Your task to perform on an android device: clear history in the chrome app Image 0: 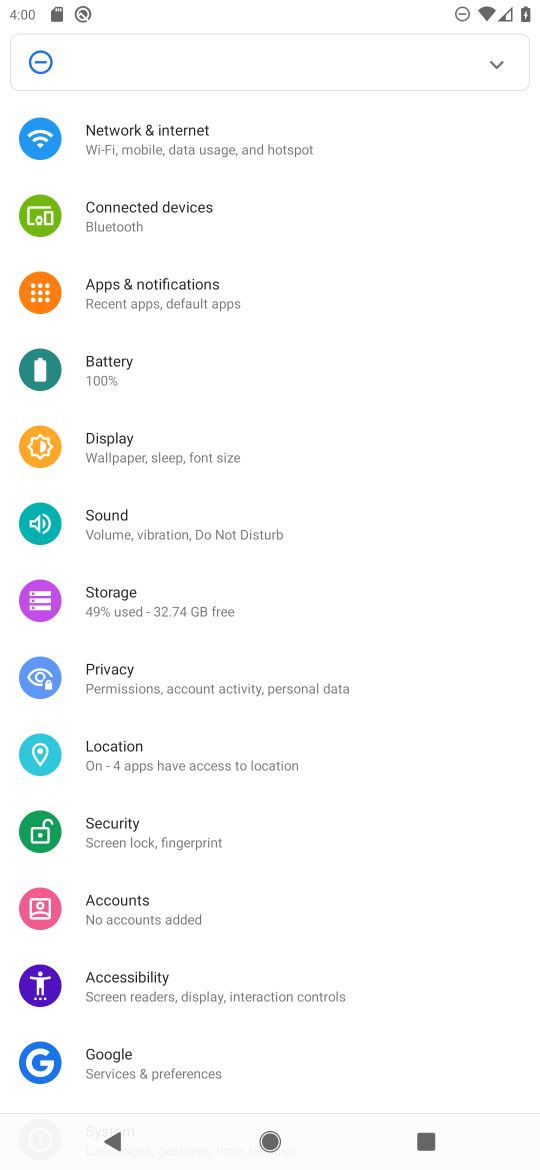
Step 0: press home button
Your task to perform on an android device: clear history in the chrome app Image 1: 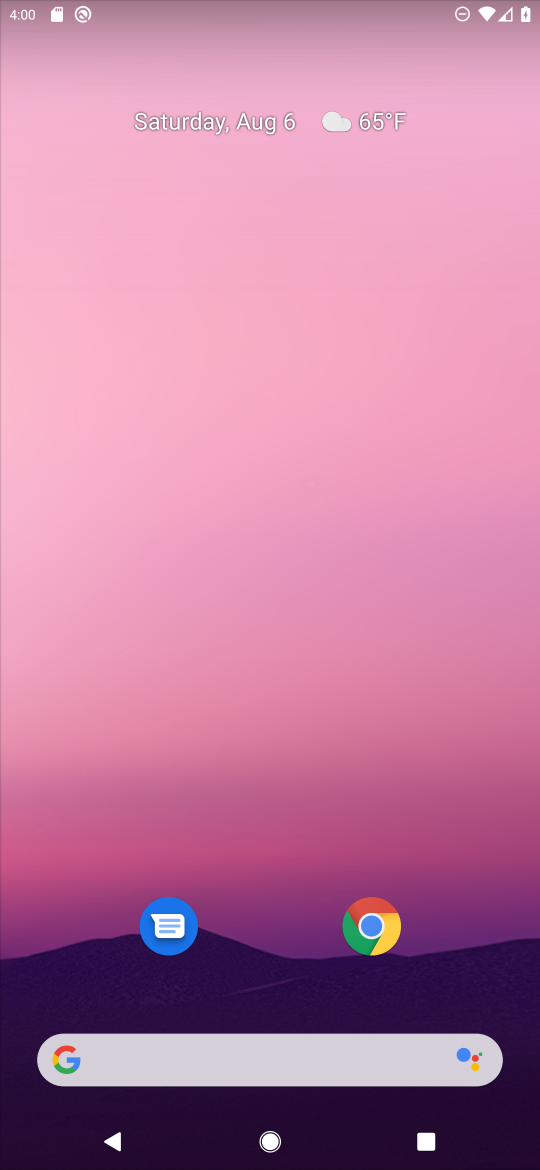
Step 1: click (397, 904)
Your task to perform on an android device: clear history in the chrome app Image 2: 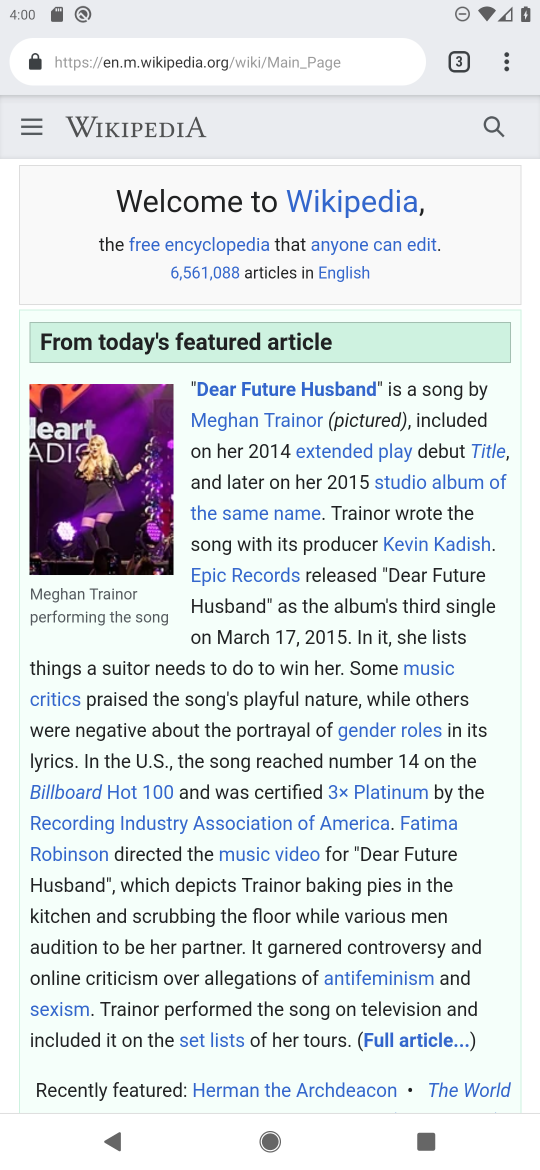
Step 2: click (510, 48)
Your task to perform on an android device: clear history in the chrome app Image 3: 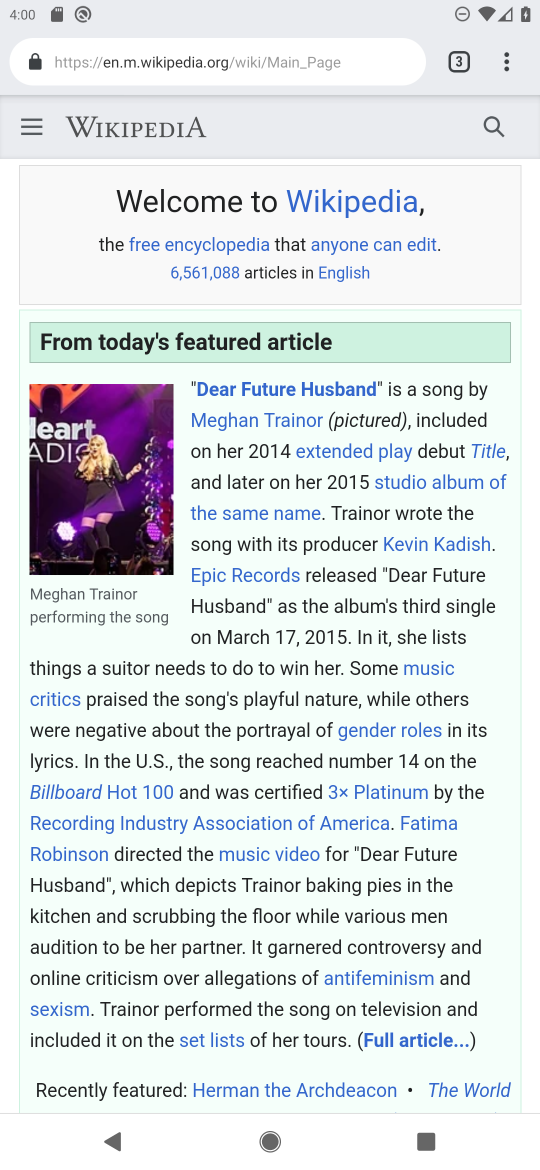
Step 3: click (513, 54)
Your task to perform on an android device: clear history in the chrome app Image 4: 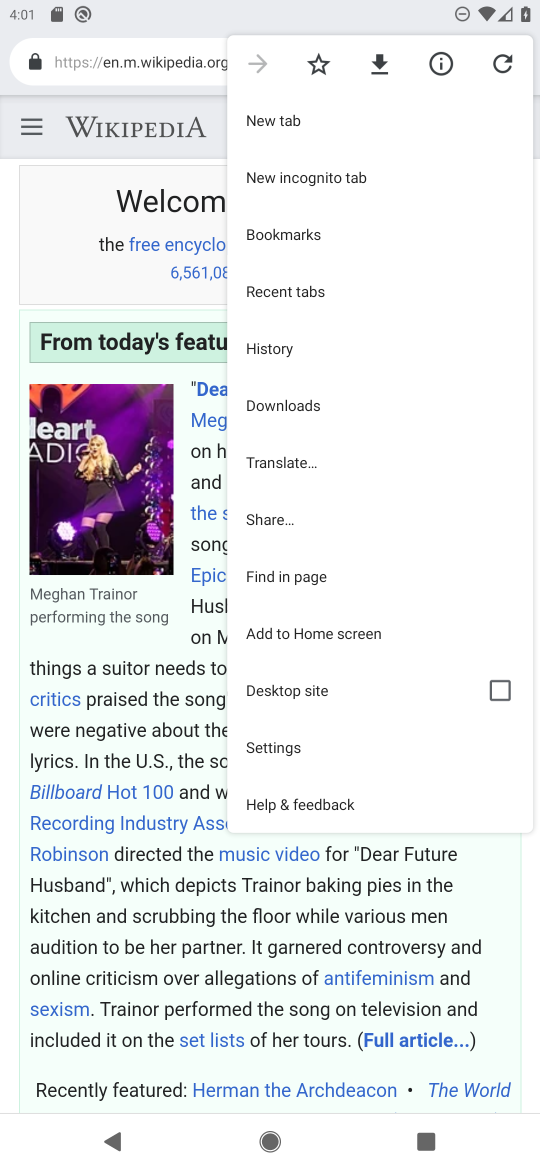
Step 4: click (278, 345)
Your task to perform on an android device: clear history in the chrome app Image 5: 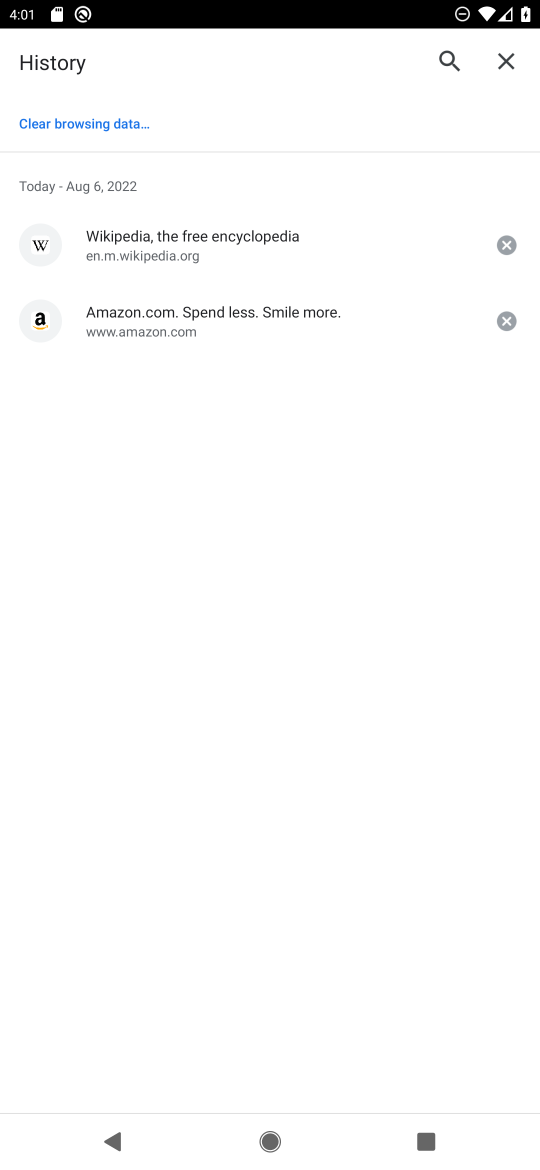
Step 5: click (90, 135)
Your task to perform on an android device: clear history in the chrome app Image 6: 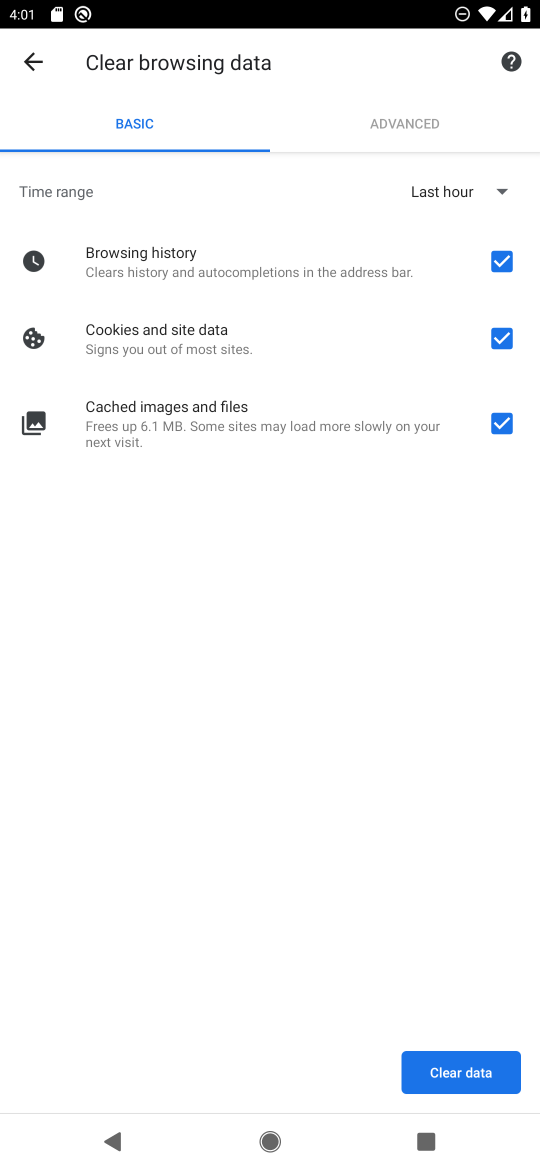
Step 6: click (495, 1070)
Your task to perform on an android device: clear history in the chrome app Image 7: 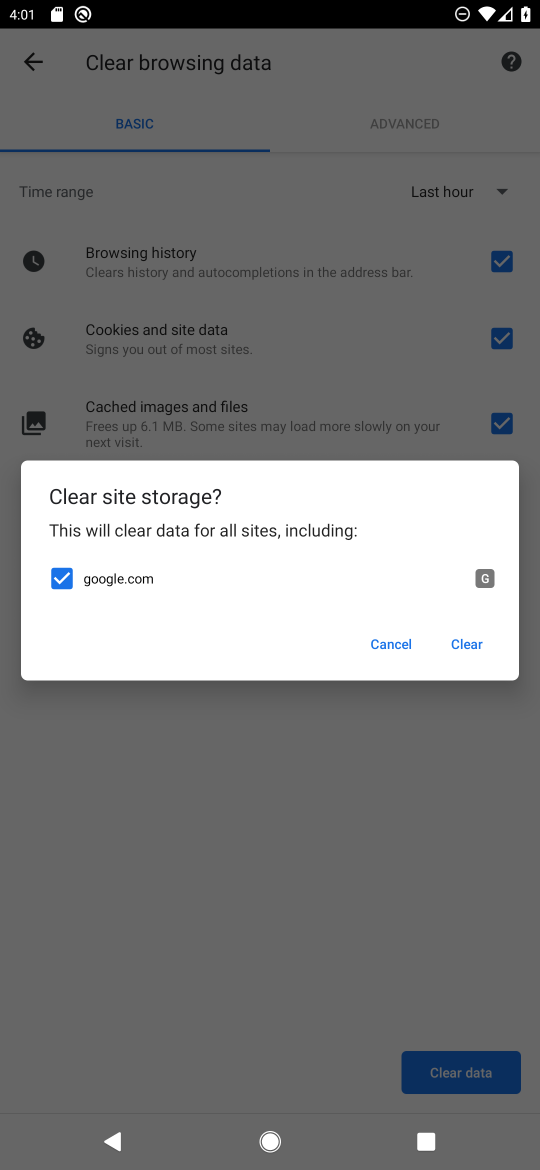
Step 7: click (479, 637)
Your task to perform on an android device: clear history in the chrome app Image 8: 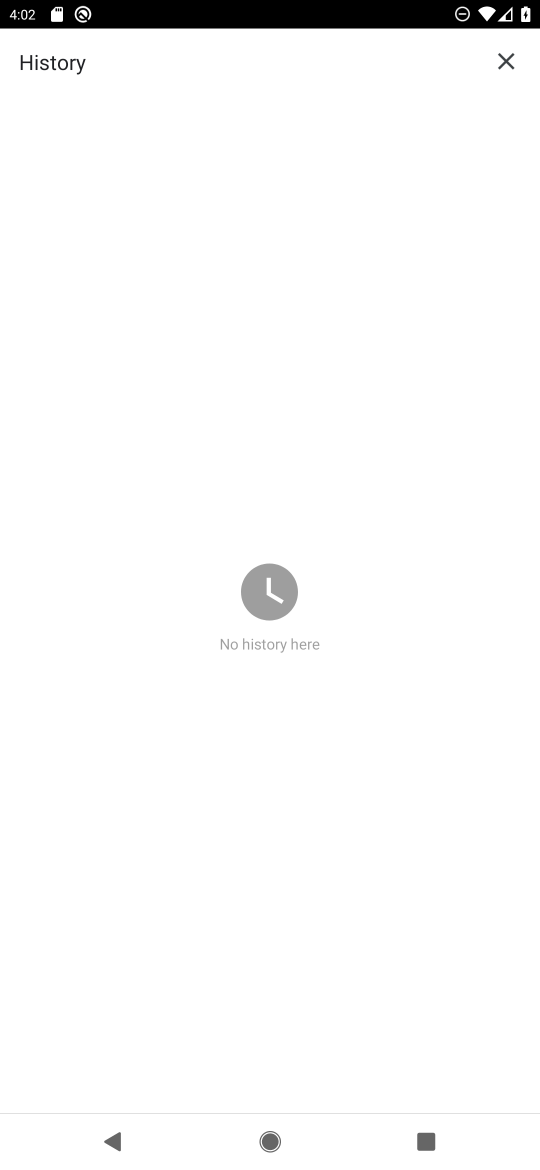
Step 8: task complete